Your task to perform on an android device: show emergency info Image 0: 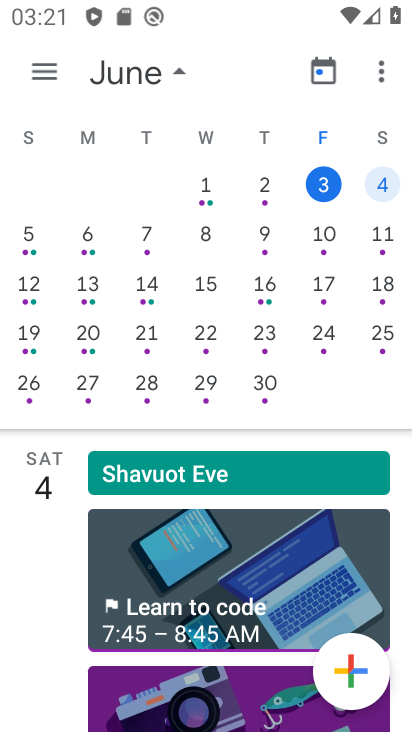
Step 0: press home button
Your task to perform on an android device: show emergency info Image 1: 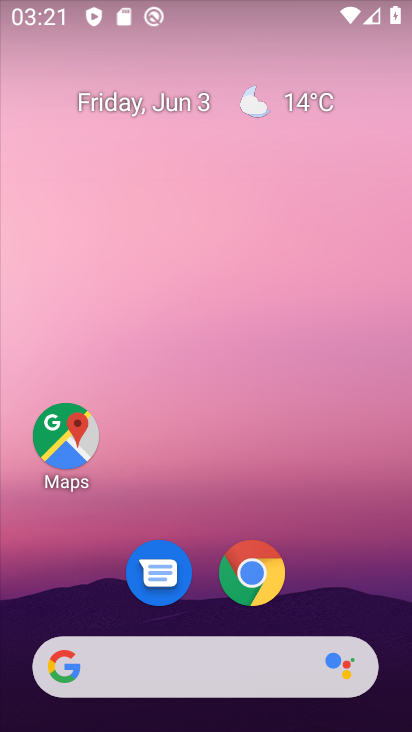
Step 1: drag from (236, 661) to (264, 112)
Your task to perform on an android device: show emergency info Image 2: 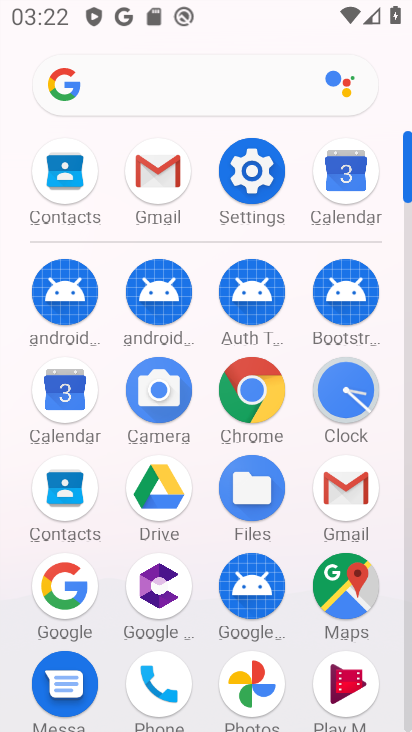
Step 2: click (261, 178)
Your task to perform on an android device: show emergency info Image 3: 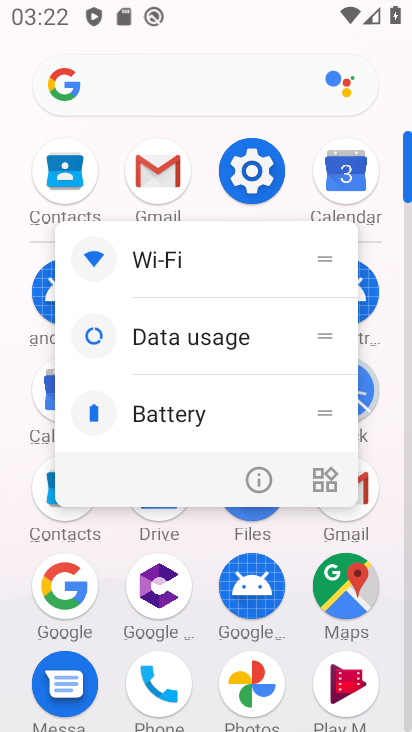
Step 3: click (261, 178)
Your task to perform on an android device: show emergency info Image 4: 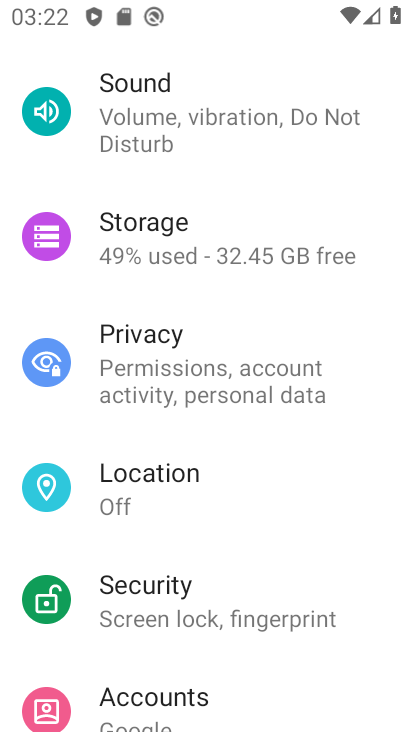
Step 4: drag from (334, 656) to (322, 113)
Your task to perform on an android device: show emergency info Image 5: 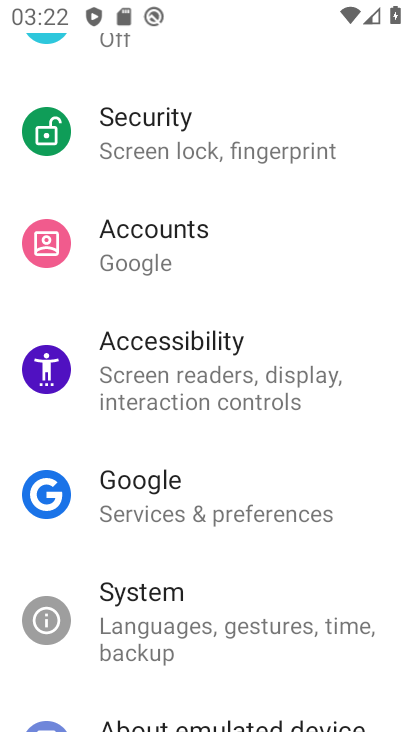
Step 5: drag from (325, 713) to (246, 69)
Your task to perform on an android device: show emergency info Image 6: 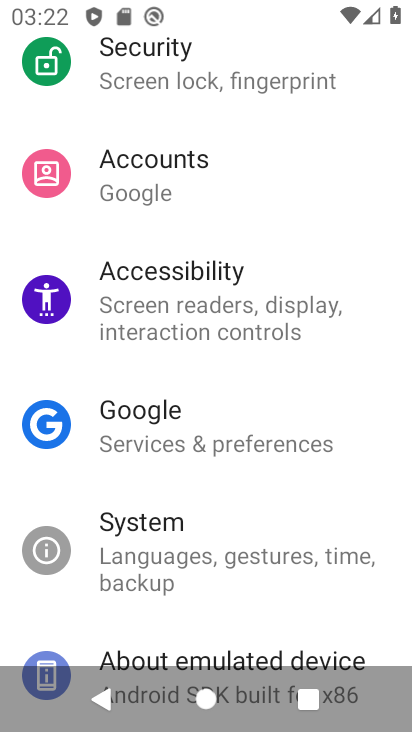
Step 6: click (283, 656)
Your task to perform on an android device: show emergency info Image 7: 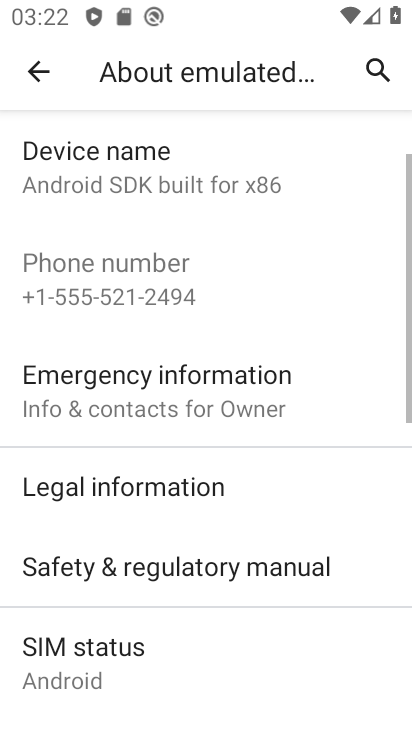
Step 7: drag from (283, 656) to (290, 274)
Your task to perform on an android device: show emergency info Image 8: 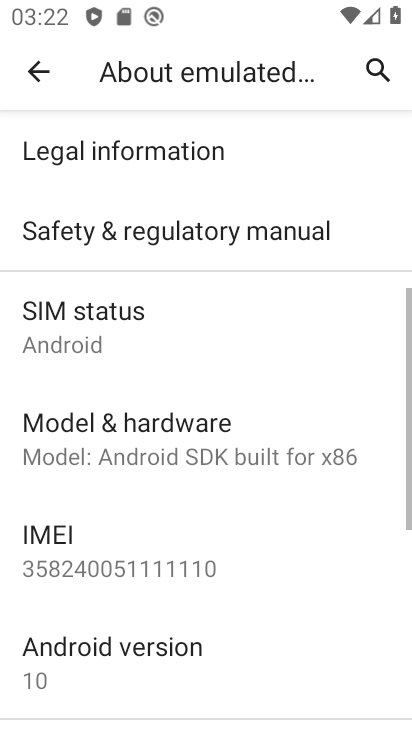
Step 8: drag from (246, 686) to (243, 352)
Your task to perform on an android device: show emergency info Image 9: 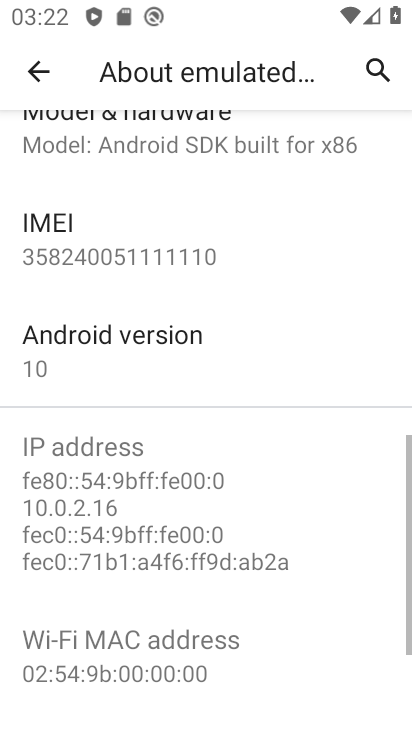
Step 9: drag from (255, 165) to (345, 710)
Your task to perform on an android device: show emergency info Image 10: 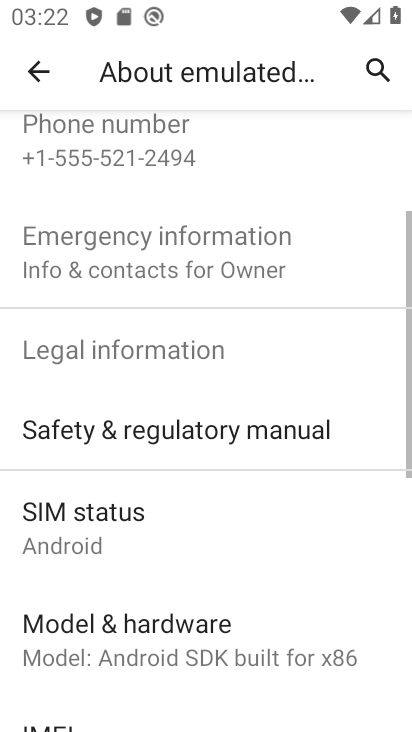
Step 10: click (234, 263)
Your task to perform on an android device: show emergency info Image 11: 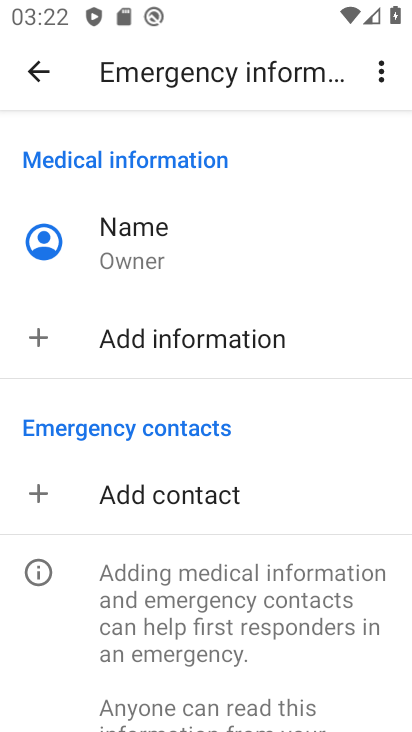
Step 11: task complete